Your task to perform on an android device: see tabs open on other devices in the chrome app Image 0: 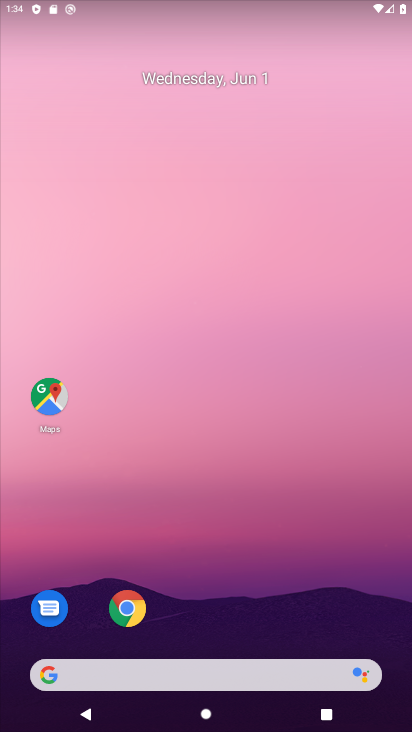
Step 0: drag from (331, 637) to (194, 15)
Your task to perform on an android device: see tabs open on other devices in the chrome app Image 1: 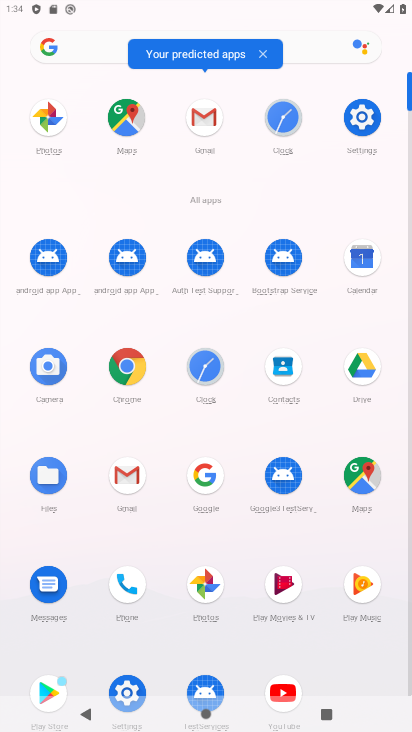
Step 1: click (125, 357)
Your task to perform on an android device: see tabs open on other devices in the chrome app Image 2: 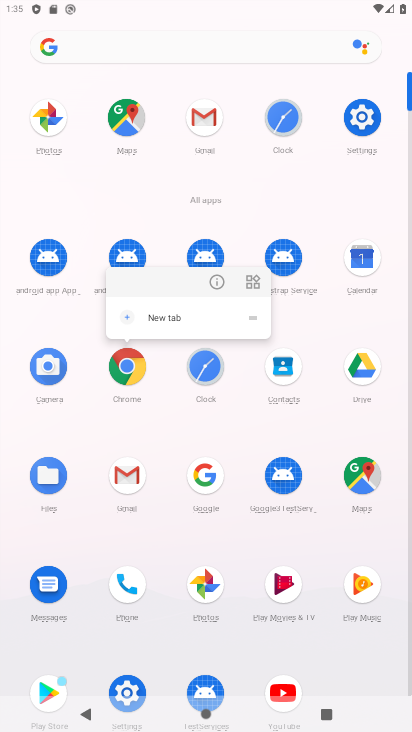
Step 2: click (129, 371)
Your task to perform on an android device: see tabs open on other devices in the chrome app Image 3: 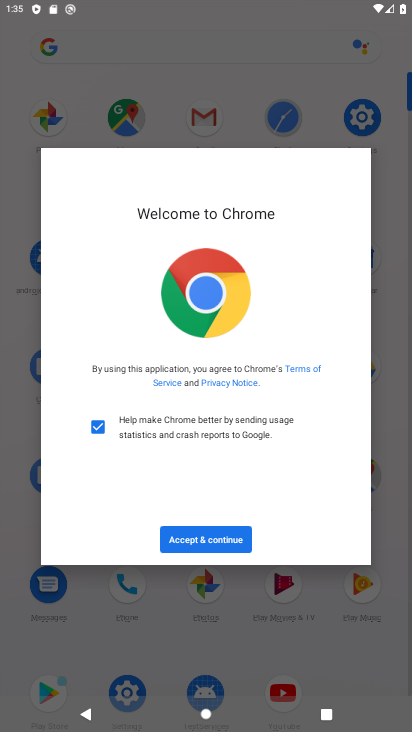
Step 3: click (201, 533)
Your task to perform on an android device: see tabs open on other devices in the chrome app Image 4: 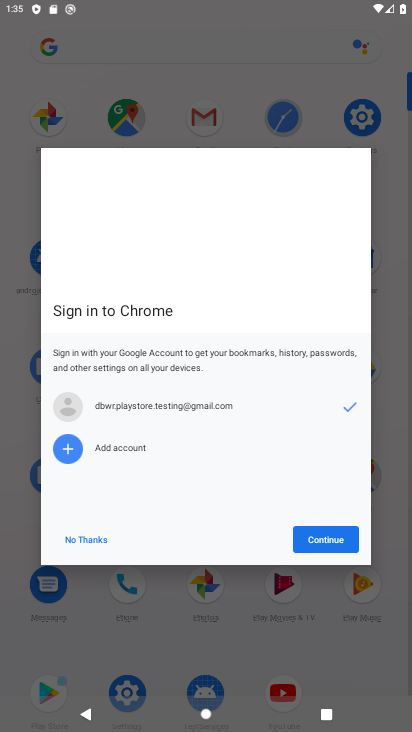
Step 4: click (306, 541)
Your task to perform on an android device: see tabs open on other devices in the chrome app Image 5: 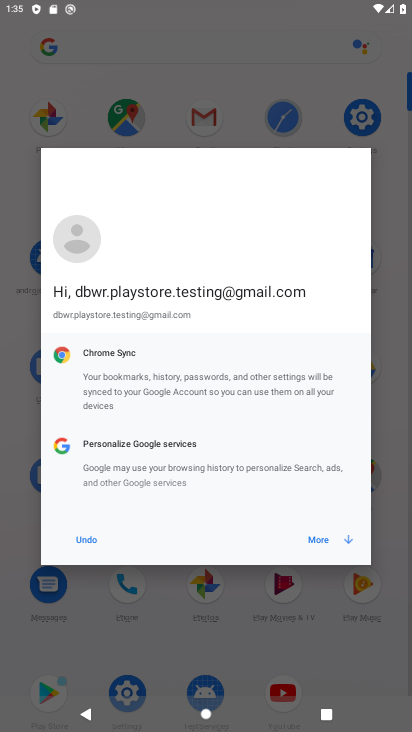
Step 5: click (306, 541)
Your task to perform on an android device: see tabs open on other devices in the chrome app Image 6: 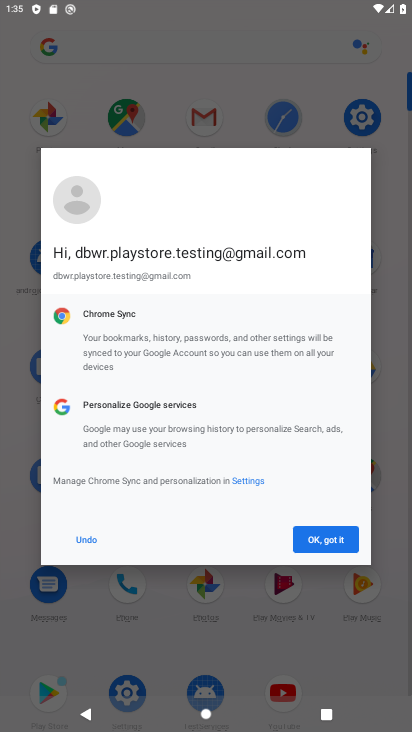
Step 6: click (306, 541)
Your task to perform on an android device: see tabs open on other devices in the chrome app Image 7: 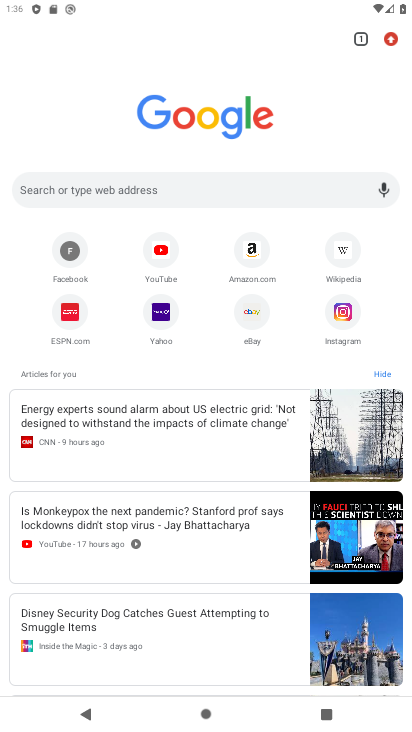
Step 7: task complete